Your task to perform on an android device: Go to notification settings Image 0: 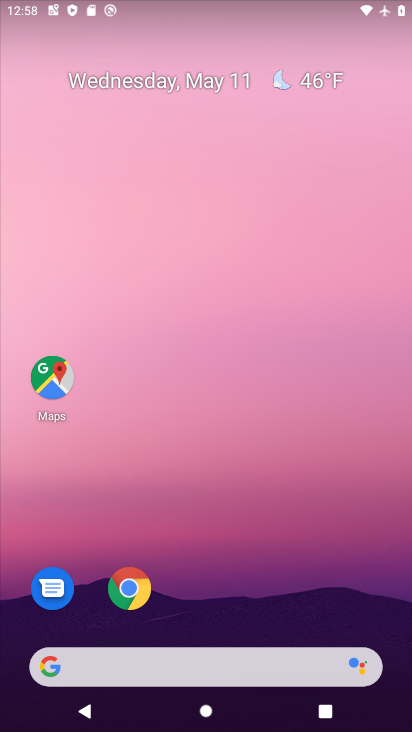
Step 0: drag from (294, 509) to (266, 84)
Your task to perform on an android device: Go to notification settings Image 1: 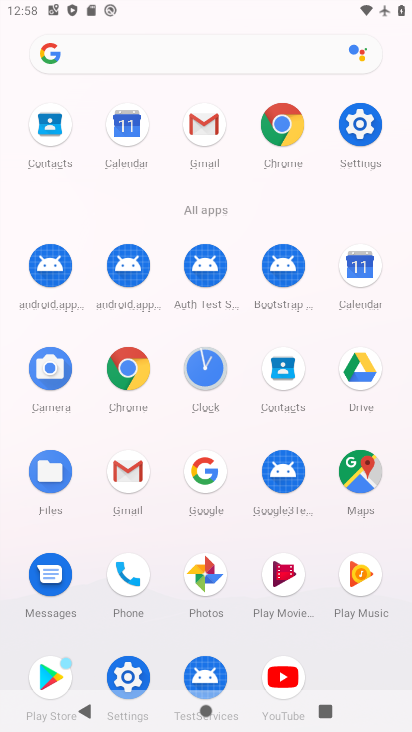
Step 1: click (356, 147)
Your task to perform on an android device: Go to notification settings Image 2: 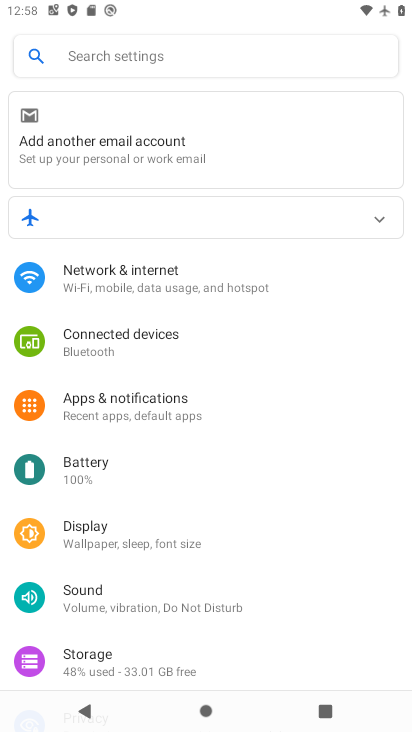
Step 2: click (156, 393)
Your task to perform on an android device: Go to notification settings Image 3: 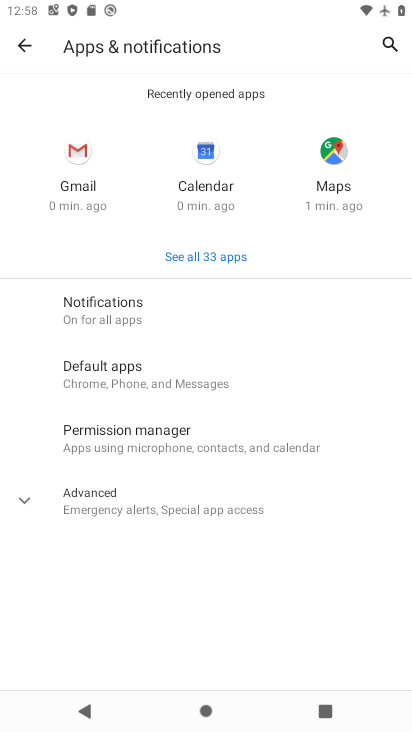
Step 3: click (241, 308)
Your task to perform on an android device: Go to notification settings Image 4: 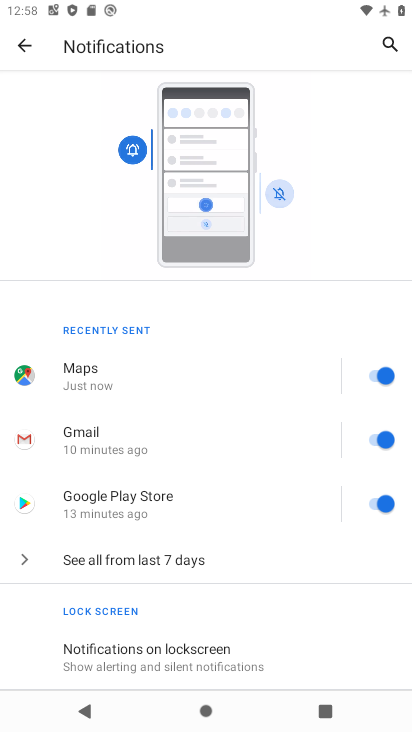
Step 4: task complete